Your task to perform on an android device: Show the shopping cart on amazon.com. Search for macbook pro 13 inch on amazon.com, select the first entry, and add it to the cart. Image 0: 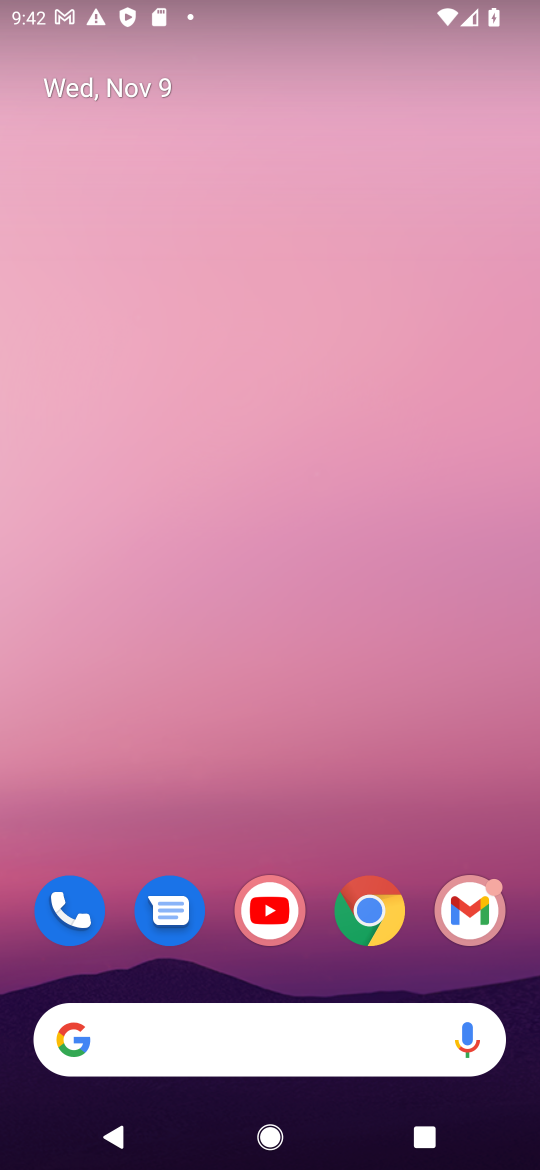
Step 0: click (360, 917)
Your task to perform on an android device: Show the shopping cart on amazon.com. Search for macbook pro 13 inch on amazon.com, select the first entry, and add it to the cart. Image 1: 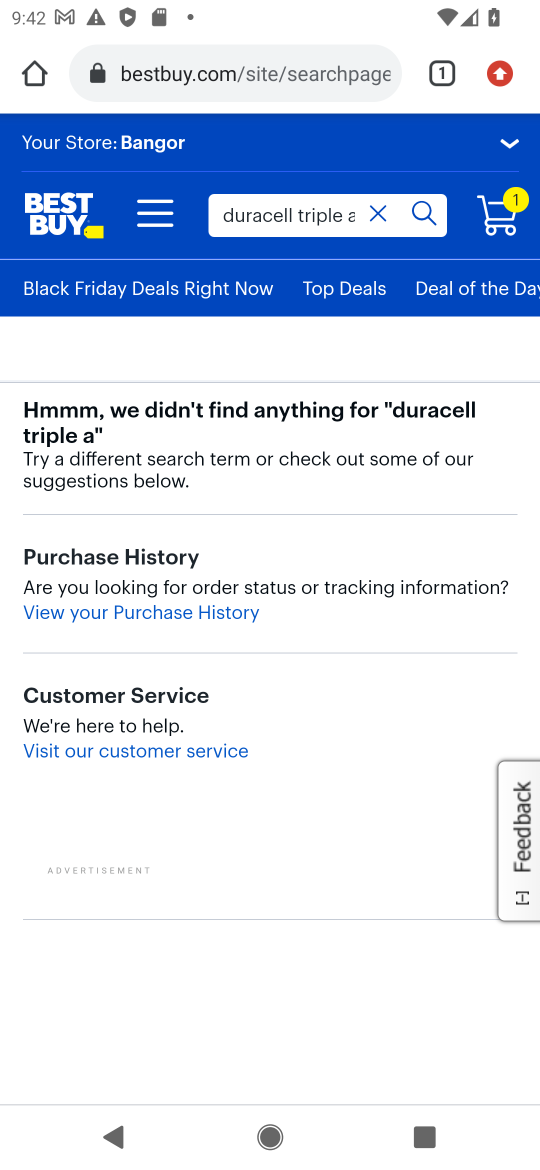
Step 1: click (229, 83)
Your task to perform on an android device: Show the shopping cart on amazon.com. Search for macbook pro 13 inch on amazon.com, select the first entry, and add it to the cart. Image 2: 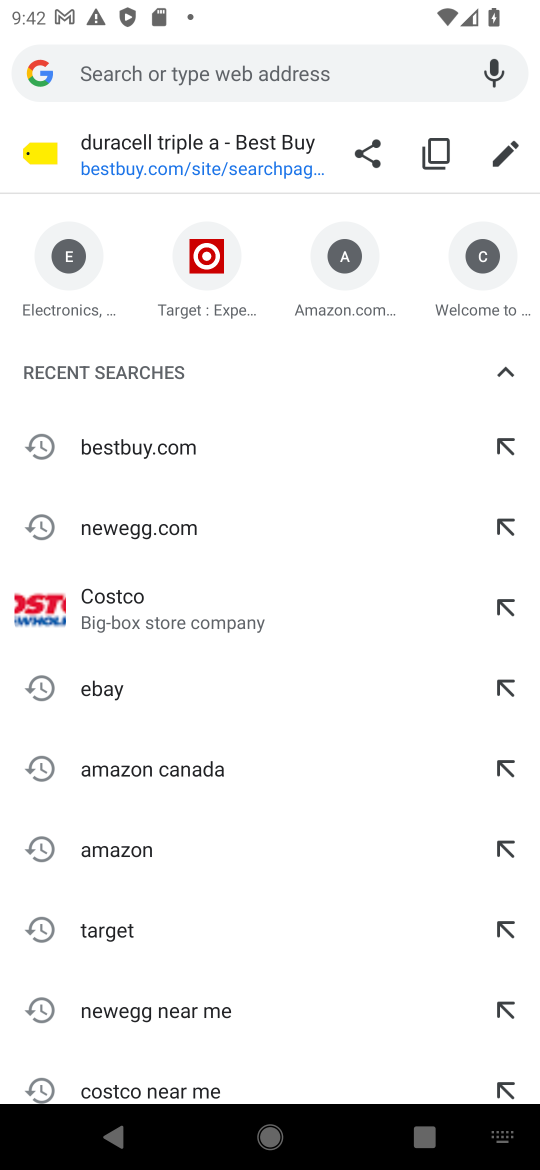
Step 2: click (344, 290)
Your task to perform on an android device: Show the shopping cart on amazon.com. Search for macbook pro 13 inch on amazon.com, select the first entry, and add it to the cart. Image 3: 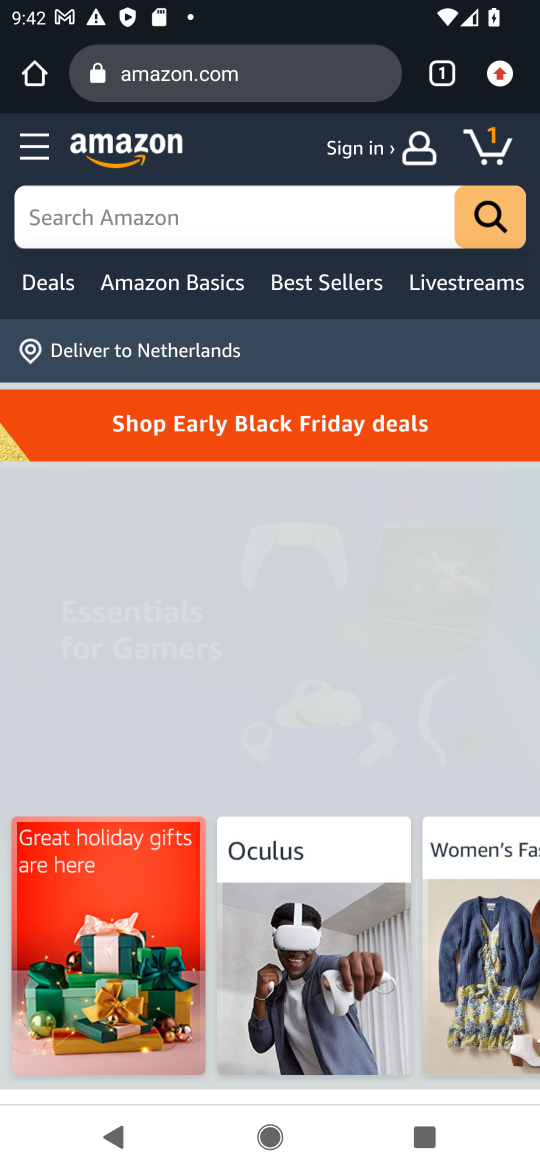
Step 3: click (496, 146)
Your task to perform on an android device: Show the shopping cart on amazon.com. Search for macbook pro 13 inch on amazon.com, select the first entry, and add it to the cart. Image 4: 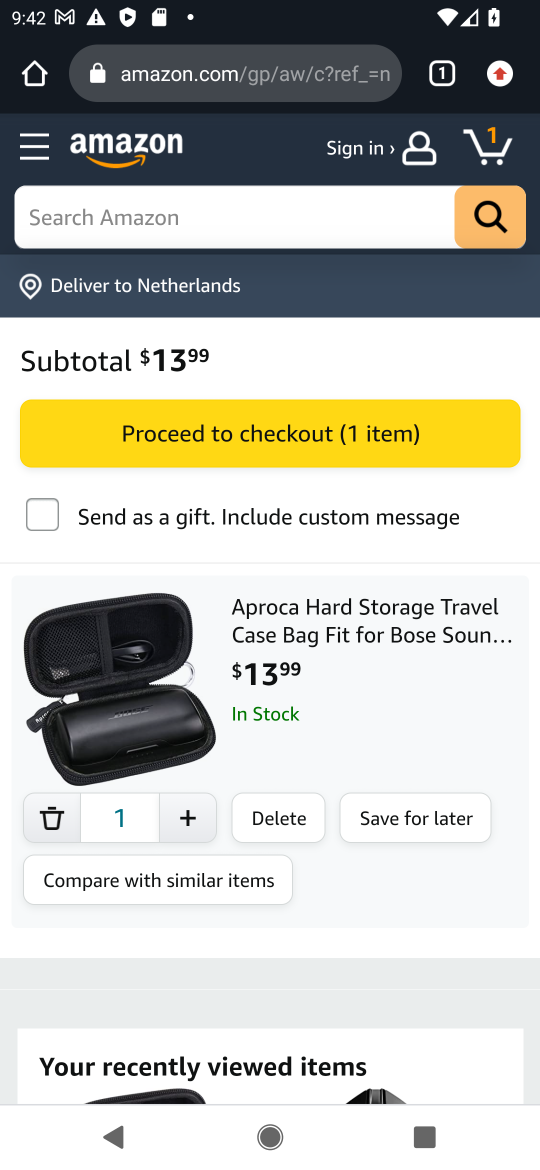
Step 4: drag from (277, 903) to (287, 661)
Your task to perform on an android device: Show the shopping cart on amazon.com. Search for macbook pro 13 inch on amazon.com, select the first entry, and add it to the cart. Image 5: 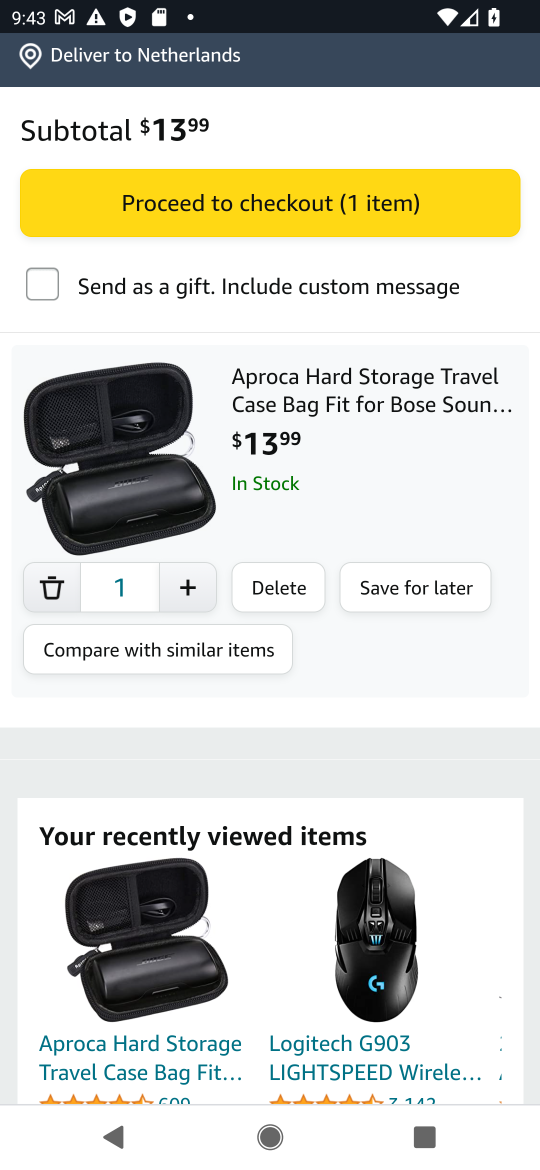
Step 5: drag from (413, 569) to (418, 972)
Your task to perform on an android device: Show the shopping cart on amazon.com. Search for macbook pro 13 inch on amazon.com, select the first entry, and add it to the cart. Image 6: 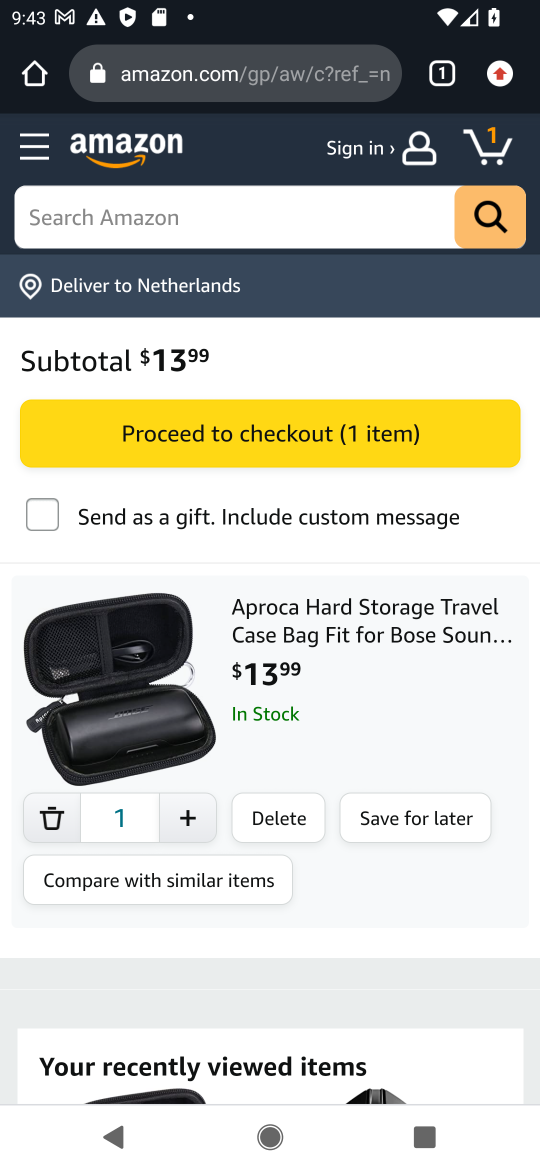
Step 6: click (247, 220)
Your task to perform on an android device: Show the shopping cart on amazon.com. Search for macbook pro 13 inch on amazon.com, select the first entry, and add it to the cart. Image 7: 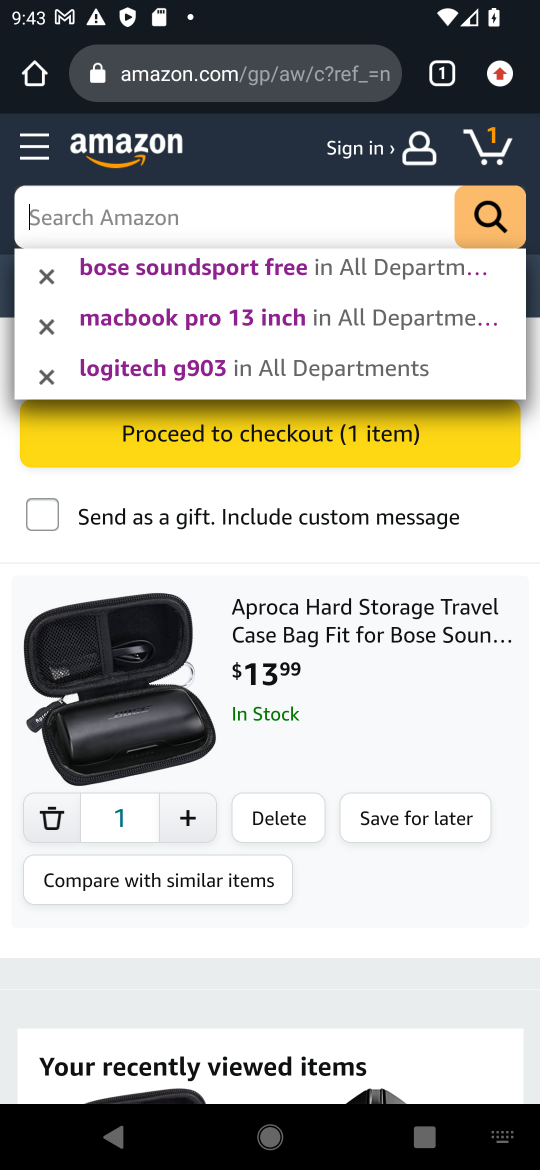
Step 7: type "macbook pro 13 inch"
Your task to perform on an android device: Show the shopping cart on amazon.com. Search for macbook pro 13 inch on amazon.com, select the first entry, and add it to the cart. Image 8: 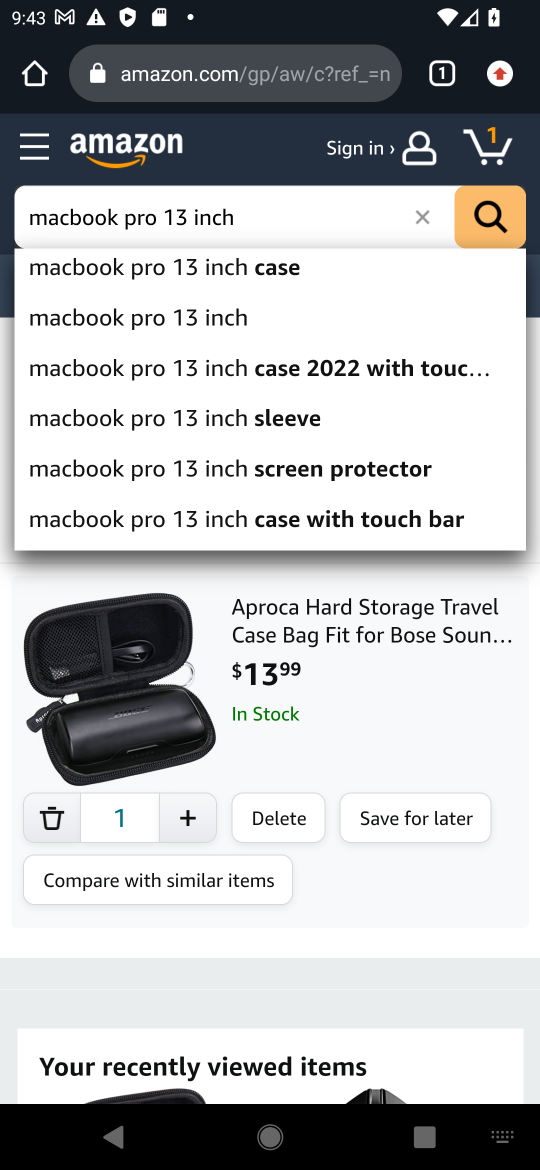
Step 8: click (127, 317)
Your task to perform on an android device: Show the shopping cart on amazon.com. Search for macbook pro 13 inch on amazon.com, select the first entry, and add it to the cart. Image 9: 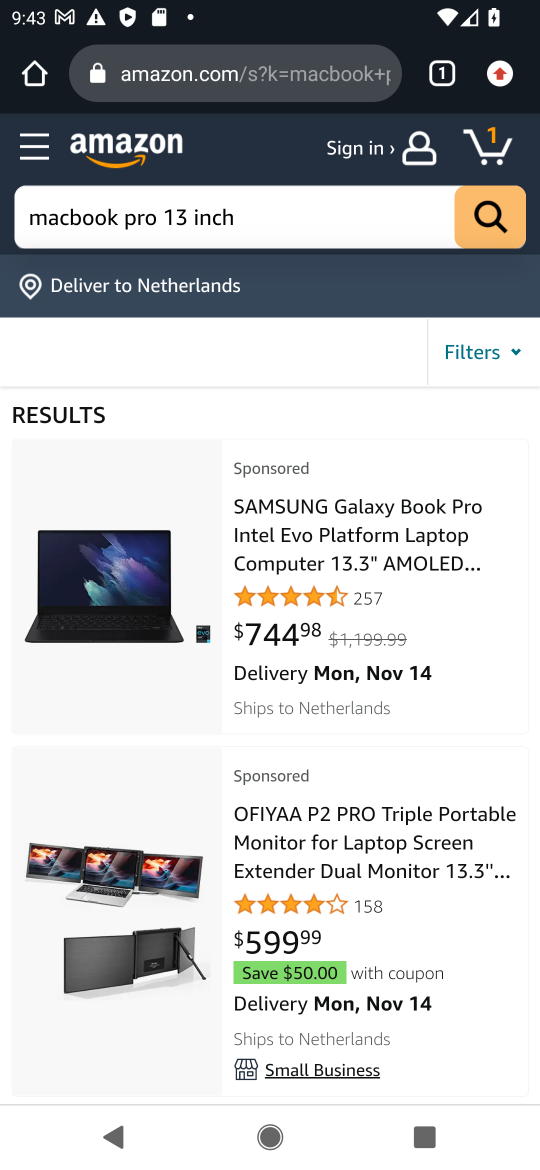
Step 9: task complete